Your task to perform on an android device: Set the phone to "Do not disturb". Image 0: 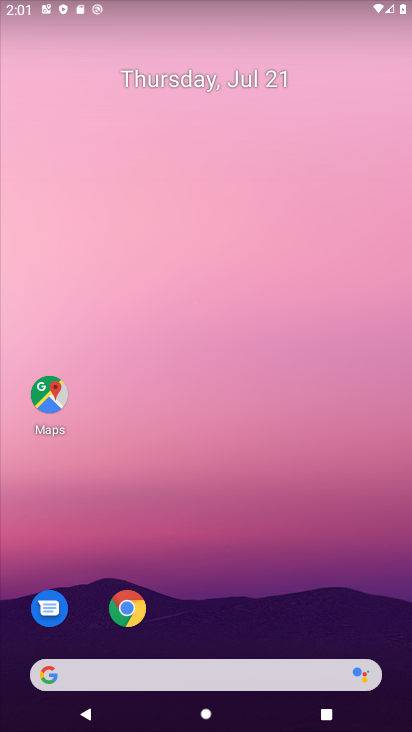
Step 0: drag from (233, 590) to (224, 92)
Your task to perform on an android device: Set the phone to "Do not disturb". Image 1: 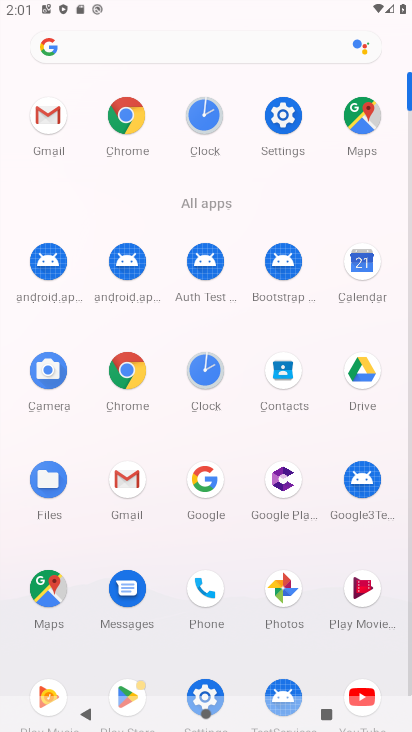
Step 1: click (266, 115)
Your task to perform on an android device: Set the phone to "Do not disturb". Image 2: 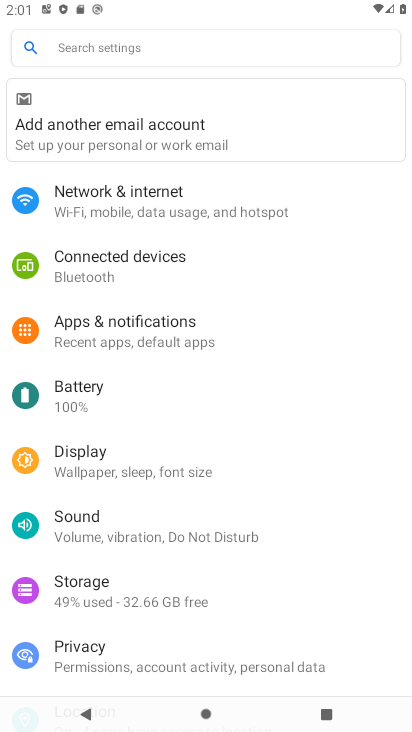
Step 2: click (62, 526)
Your task to perform on an android device: Set the phone to "Do not disturb". Image 3: 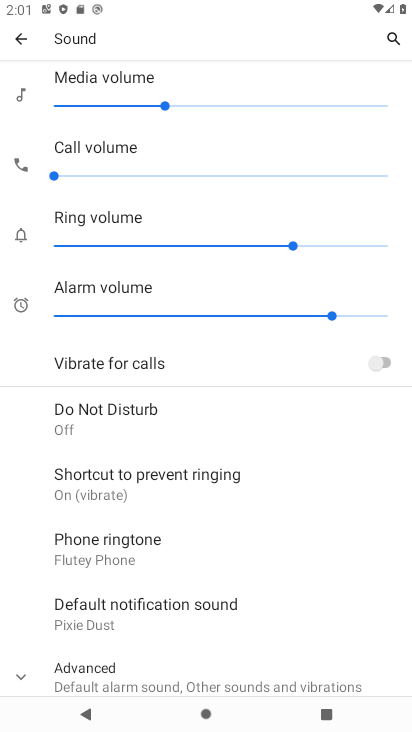
Step 3: click (135, 432)
Your task to perform on an android device: Set the phone to "Do not disturb". Image 4: 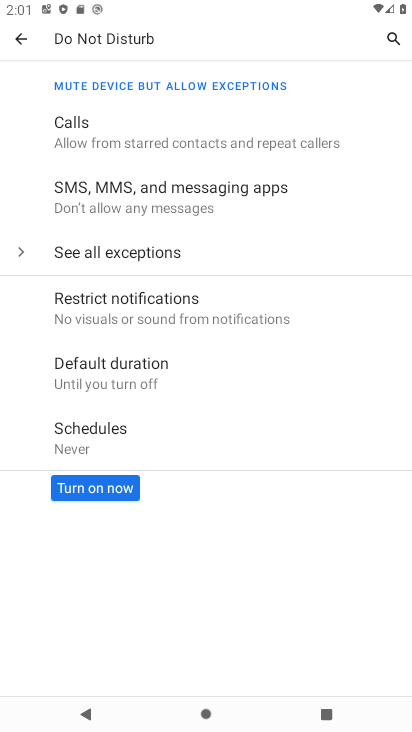
Step 4: click (128, 494)
Your task to perform on an android device: Set the phone to "Do not disturb". Image 5: 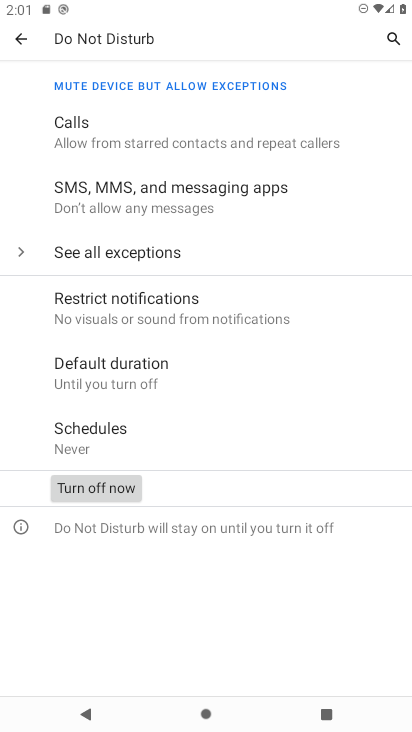
Step 5: task complete